Your task to perform on an android device: Open the Play Movies app and select the watchlist tab. Image 0: 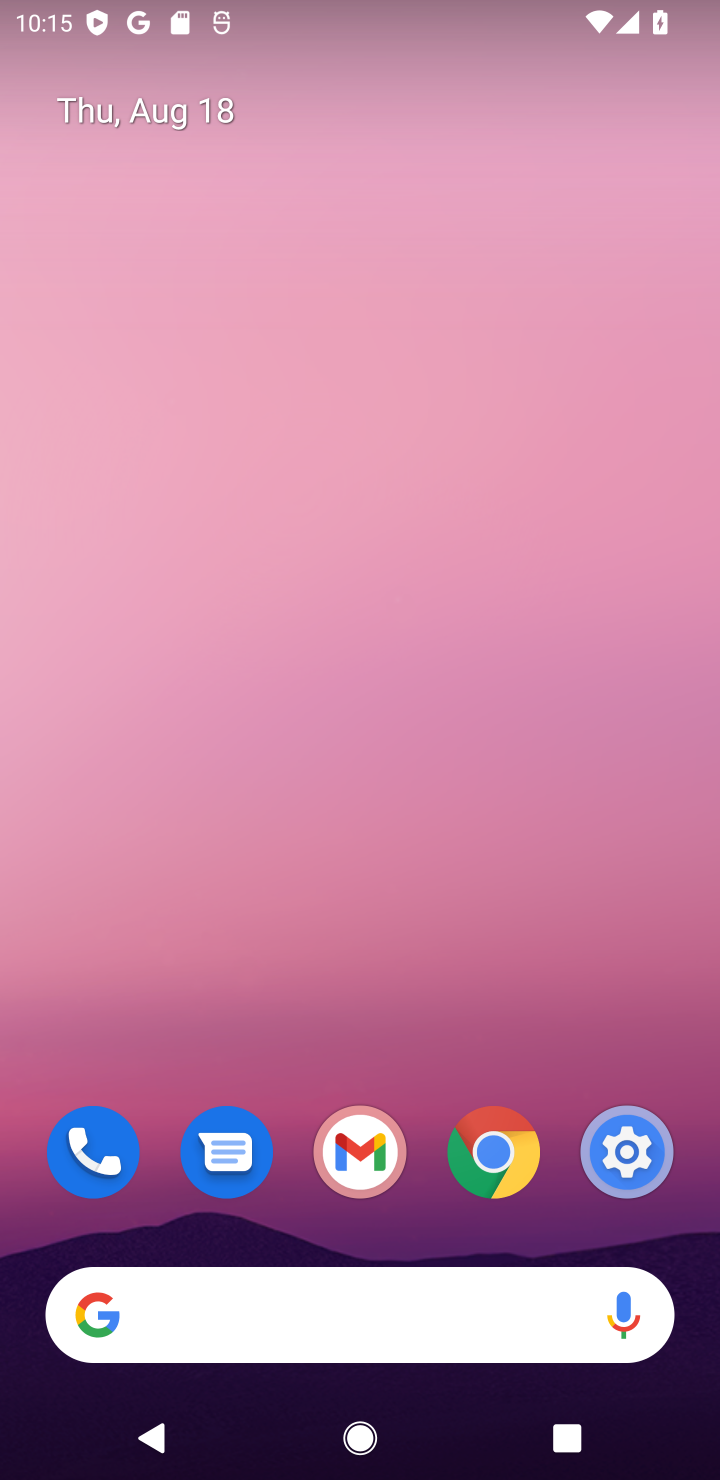
Step 0: drag from (408, 1041) to (459, 0)
Your task to perform on an android device: Open the Play Movies app and select the watchlist tab. Image 1: 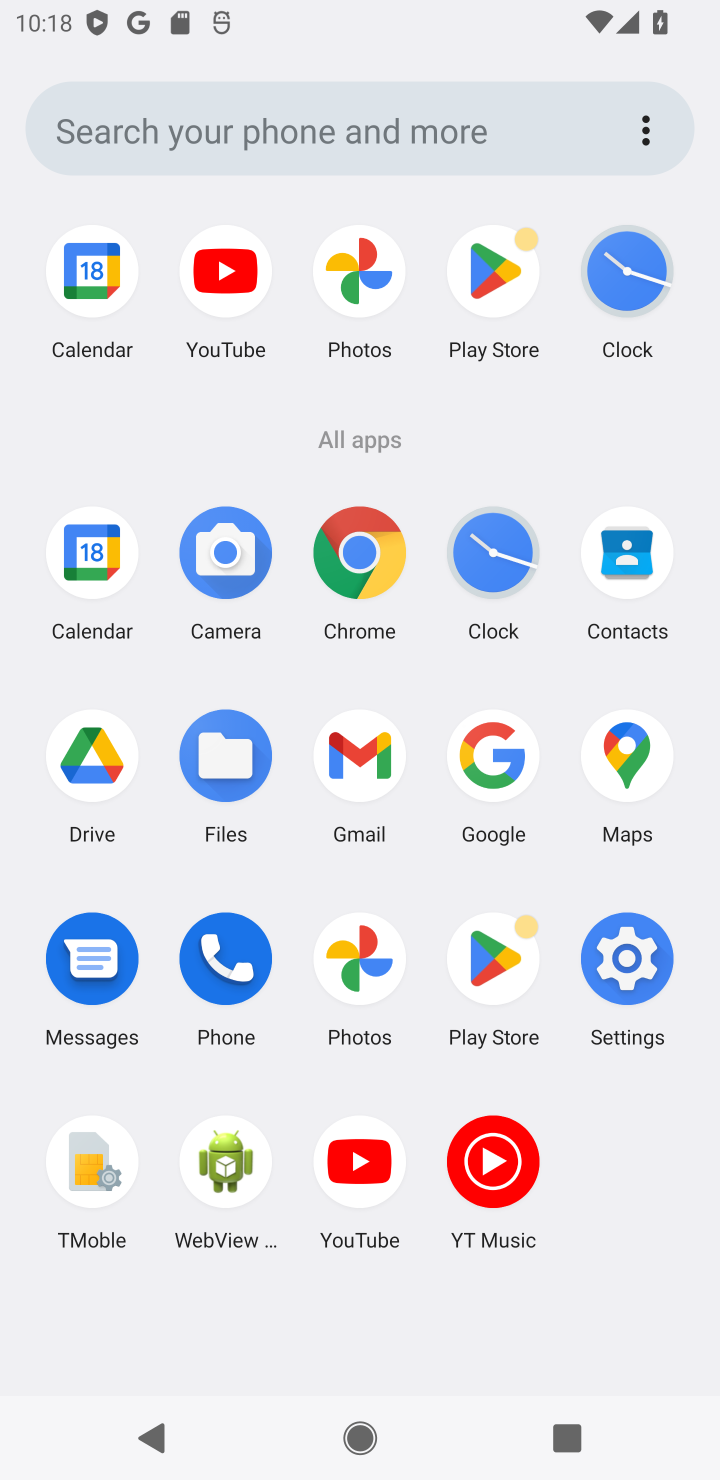
Step 1: task complete